Your task to perform on an android device: Open Google Chrome and click the shortcut for Amazon.com Image 0: 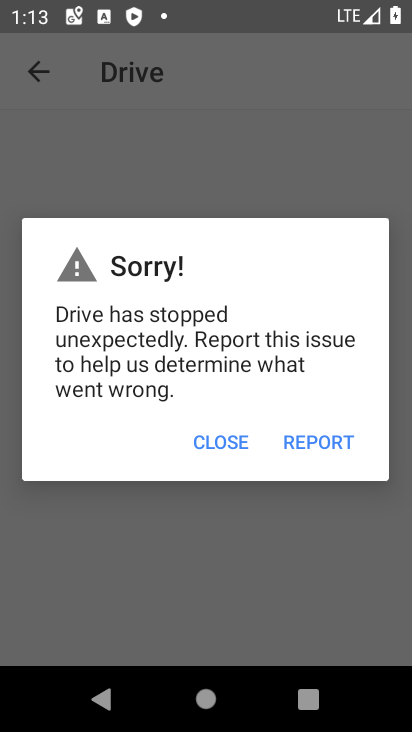
Step 0: press home button
Your task to perform on an android device: Open Google Chrome and click the shortcut for Amazon.com Image 1: 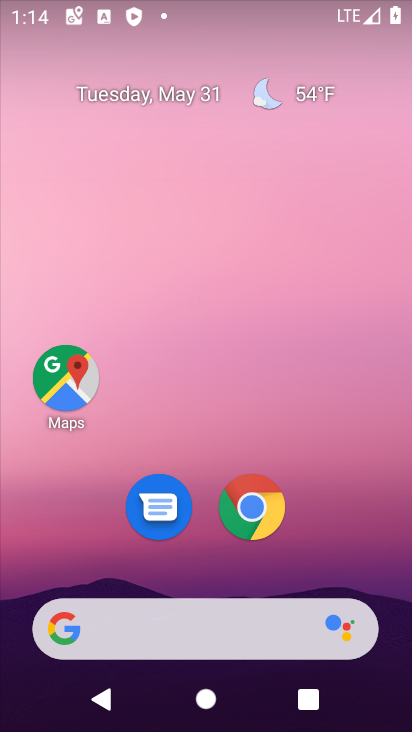
Step 1: drag from (391, 624) to (242, 54)
Your task to perform on an android device: Open Google Chrome and click the shortcut for Amazon.com Image 2: 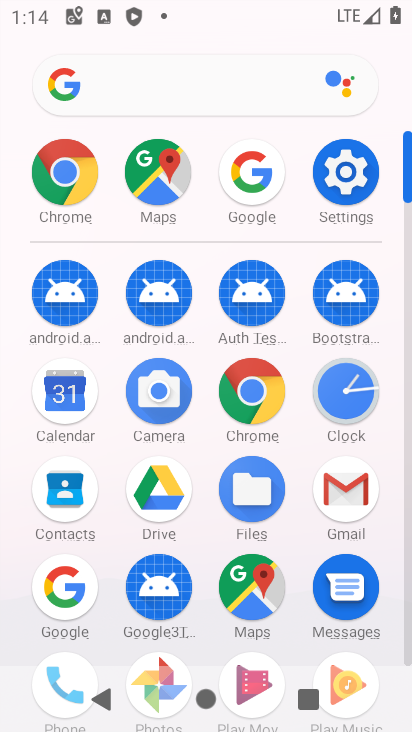
Step 2: click (69, 199)
Your task to perform on an android device: Open Google Chrome and click the shortcut for Amazon.com Image 3: 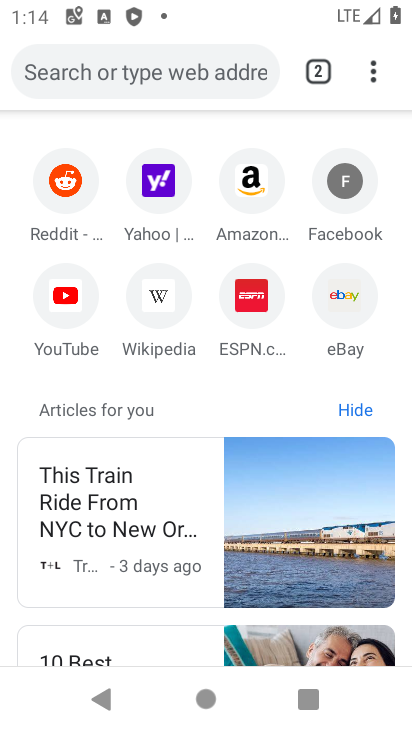
Step 3: click (251, 197)
Your task to perform on an android device: Open Google Chrome and click the shortcut for Amazon.com Image 4: 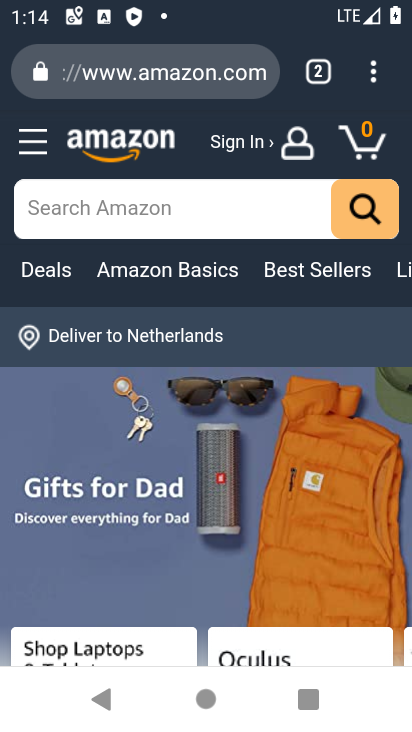
Step 4: task complete